Your task to perform on an android device: Go to settings Image 0: 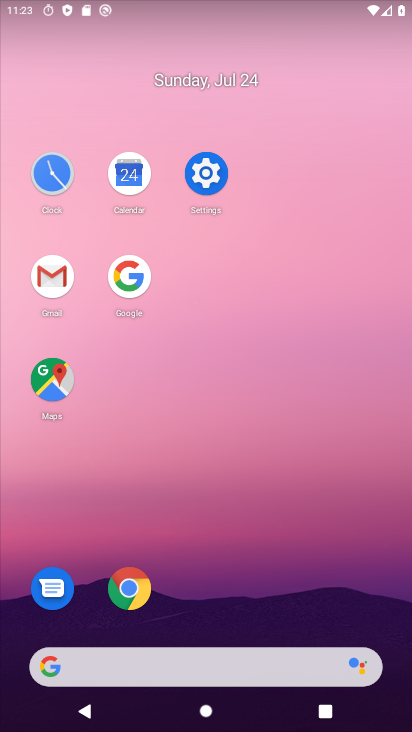
Step 0: click (200, 170)
Your task to perform on an android device: Go to settings Image 1: 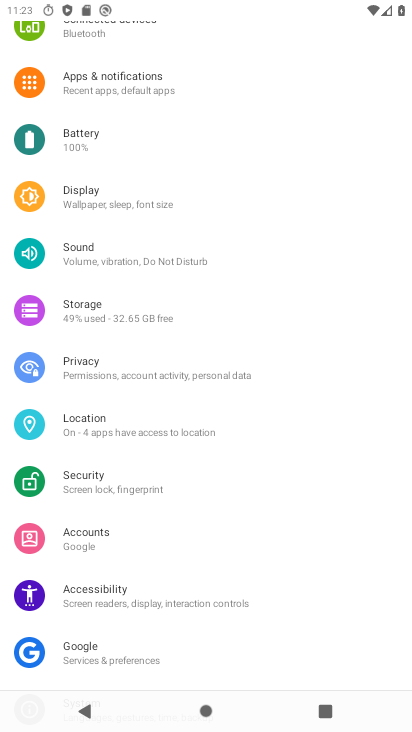
Step 1: task complete